Your task to perform on an android device: turn on bluetooth scan Image 0: 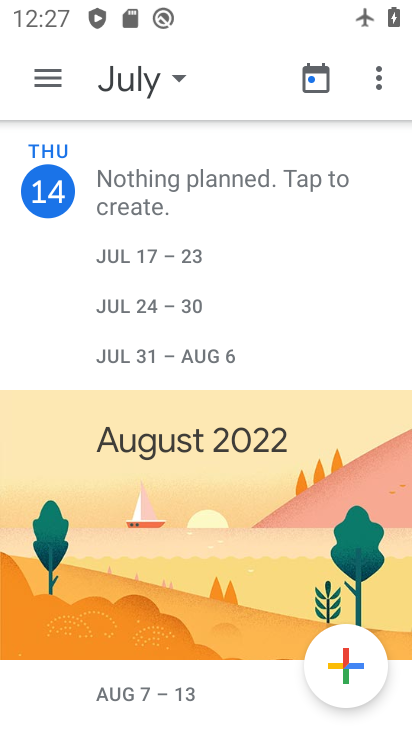
Step 0: press back button
Your task to perform on an android device: turn on bluetooth scan Image 1: 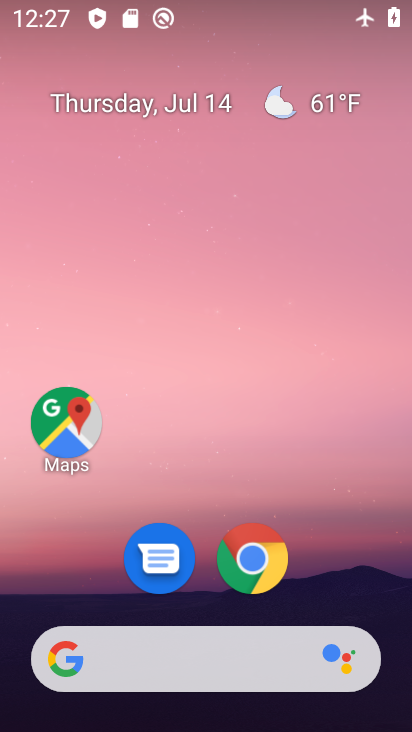
Step 1: drag from (219, 524) to (274, 30)
Your task to perform on an android device: turn on bluetooth scan Image 2: 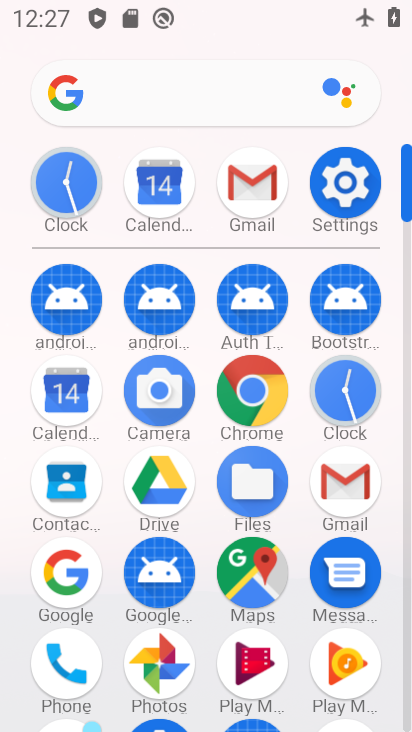
Step 2: click (362, 173)
Your task to perform on an android device: turn on bluetooth scan Image 3: 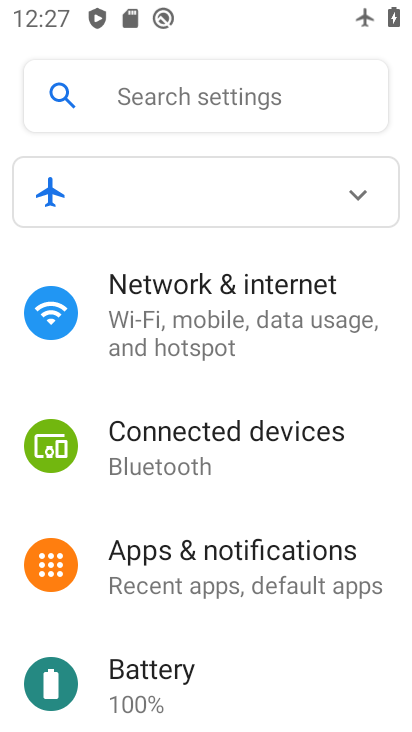
Step 3: click (200, 457)
Your task to perform on an android device: turn on bluetooth scan Image 4: 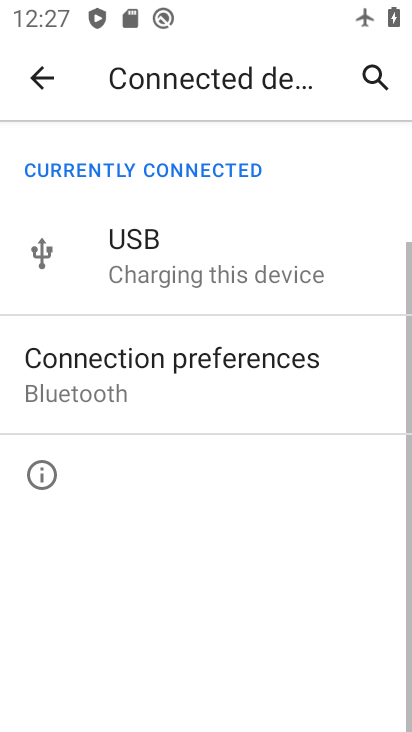
Step 4: click (61, 368)
Your task to perform on an android device: turn on bluetooth scan Image 5: 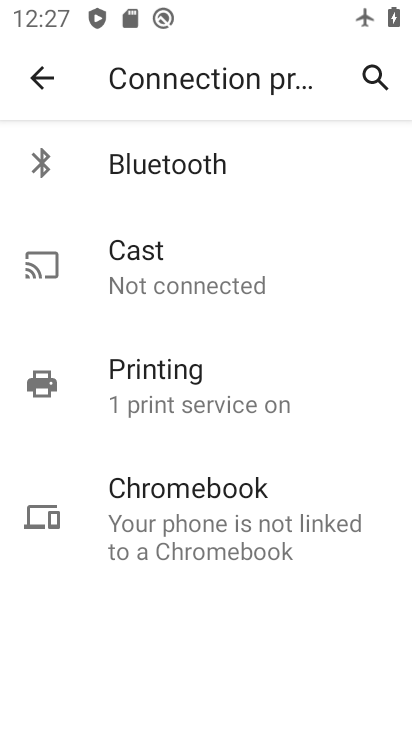
Step 5: click (204, 168)
Your task to perform on an android device: turn on bluetooth scan Image 6: 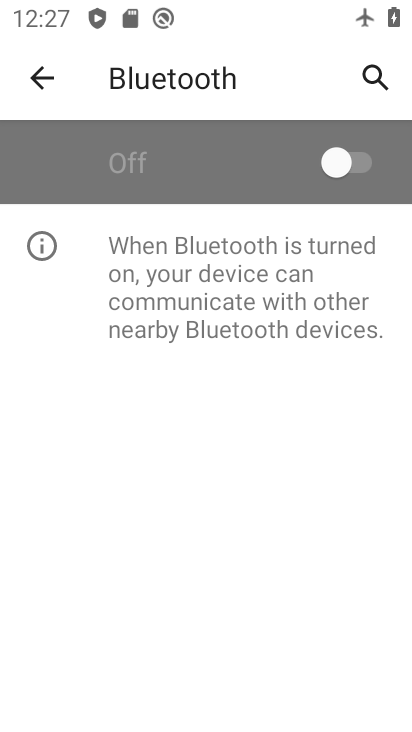
Step 6: click (354, 164)
Your task to perform on an android device: turn on bluetooth scan Image 7: 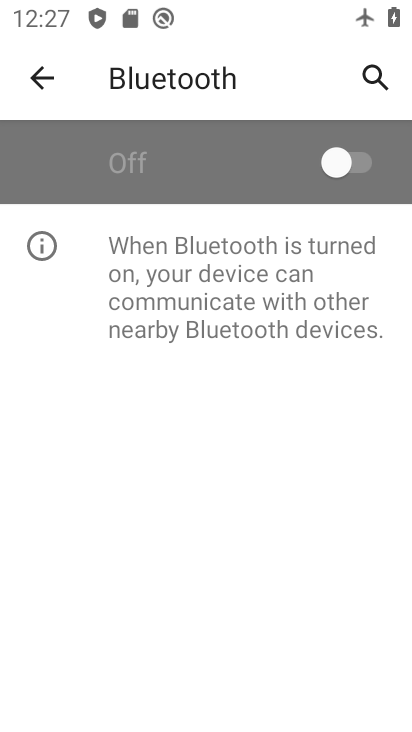
Step 7: task complete